Your task to perform on an android device: Open the phone app and click the voicemail tab. Image 0: 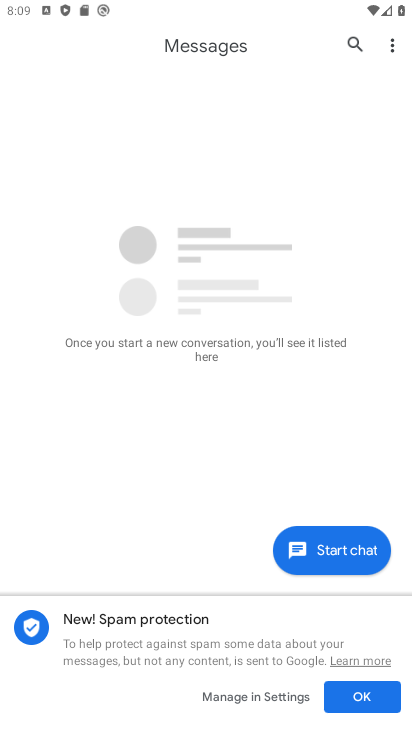
Step 0: press home button
Your task to perform on an android device: Open the phone app and click the voicemail tab. Image 1: 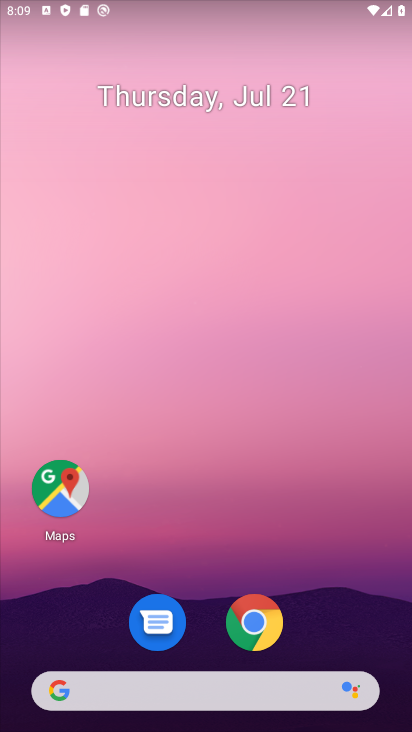
Step 1: drag from (158, 461) to (162, 368)
Your task to perform on an android device: Open the phone app and click the voicemail tab. Image 2: 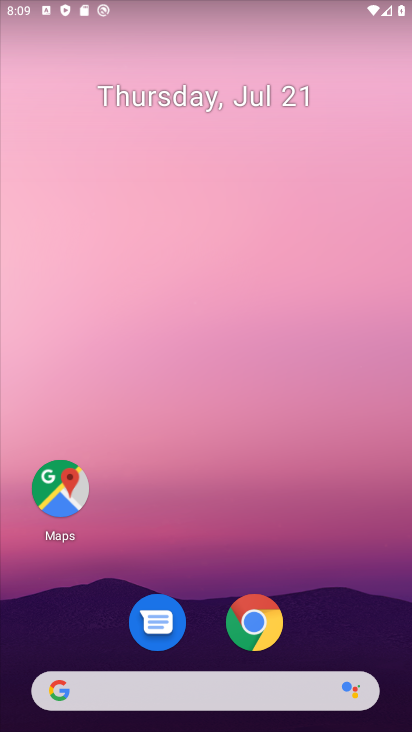
Step 2: drag from (158, 727) to (242, 16)
Your task to perform on an android device: Open the phone app and click the voicemail tab. Image 3: 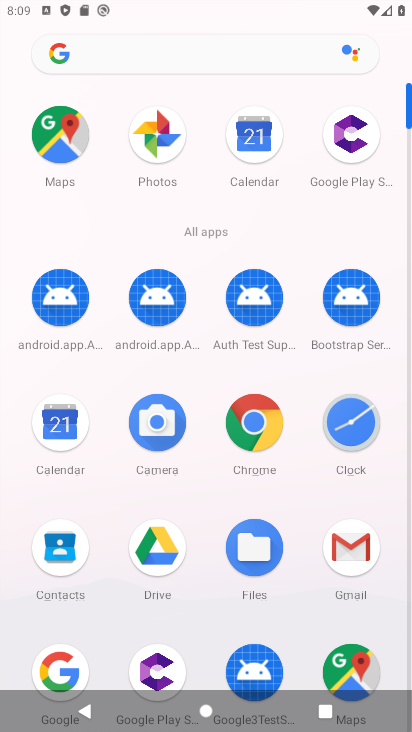
Step 3: drag from (324, 592) to (169, 128)
Your task to perform on an android device: Open the phone app and click the voicemail tab. Image 4: 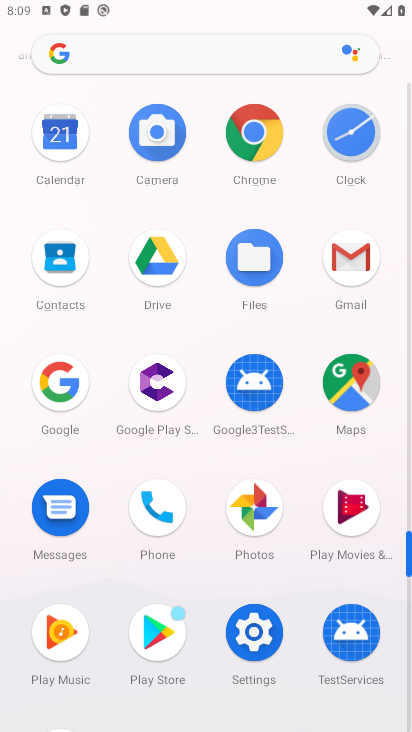
Step 4: click (158, 522)
Your task to perform on an android device: Open the phone app and click the voicemail tab. Image 5: 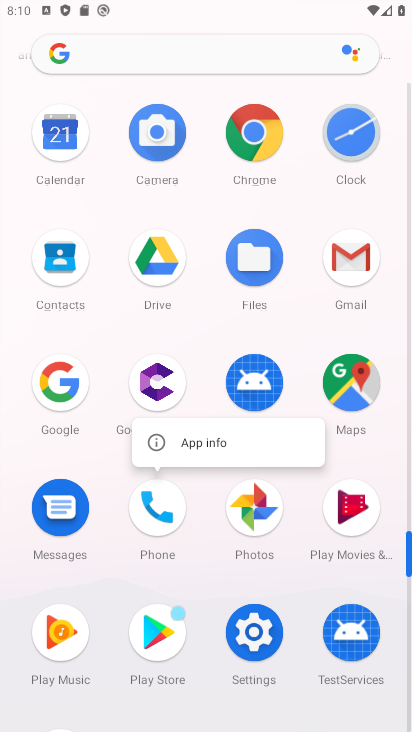
Step 5: click (157, 524)
Your task to perform on an android device: Open the phone app and click the voicemail tab. Image 6: 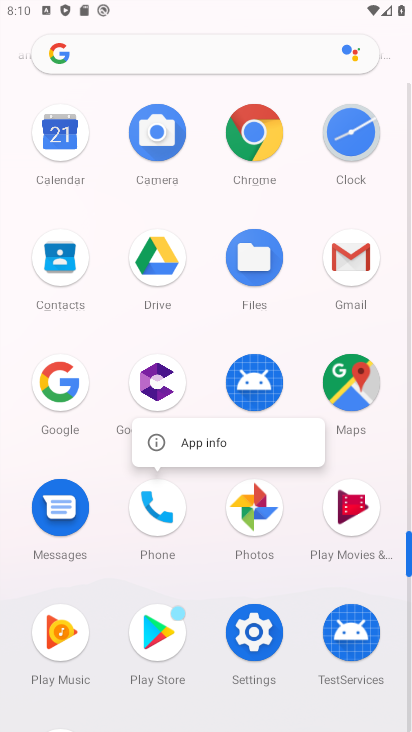
Step 6: click (157, 524)
Your task to perform on an android device: Open the phone app and click the voicemail tab. Image 7: 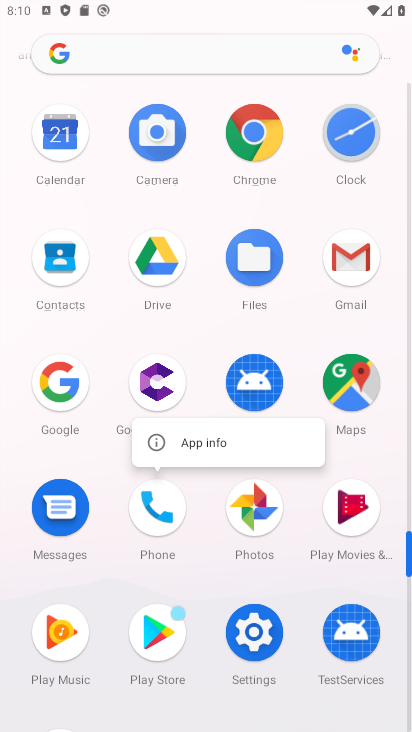
Step 7: click (157, 524)
Your task to perform on an android device: Open the phone app and click the voicemail tab. Image 8: 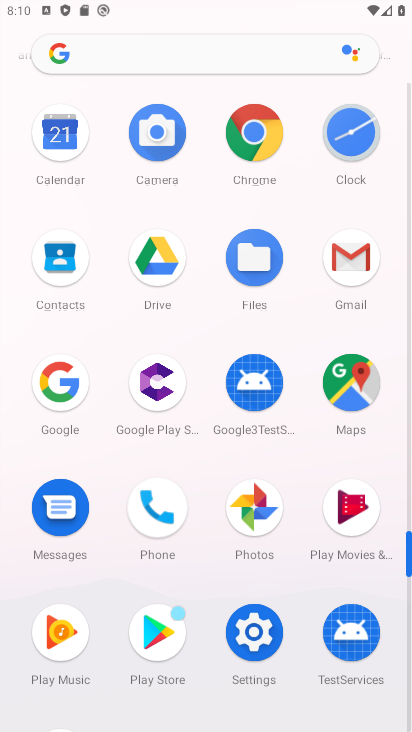
Step 8: click (157, 524)
Your task to perform on an android device: Open the phone app and click the voicemail tab. Image 9: 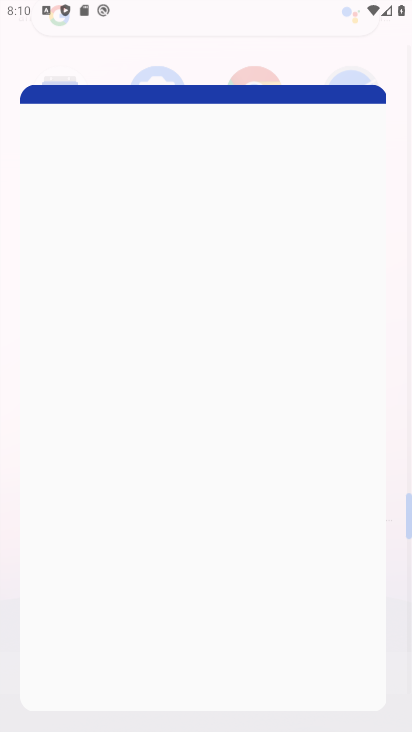
Step 9: click (157, 524)
Your task to perform on an android device: Open the phone app and click the voicemail tab. Image 10: 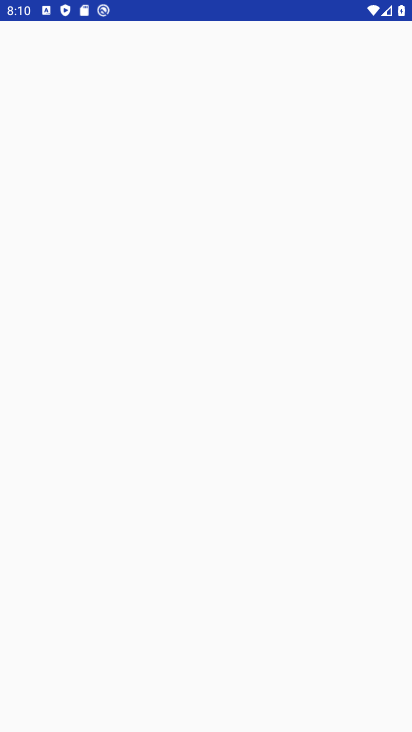
Step 10: click (157, 524)
Your task to perform on an android device: Open the phone app and click the voicemail tab. Image 11: 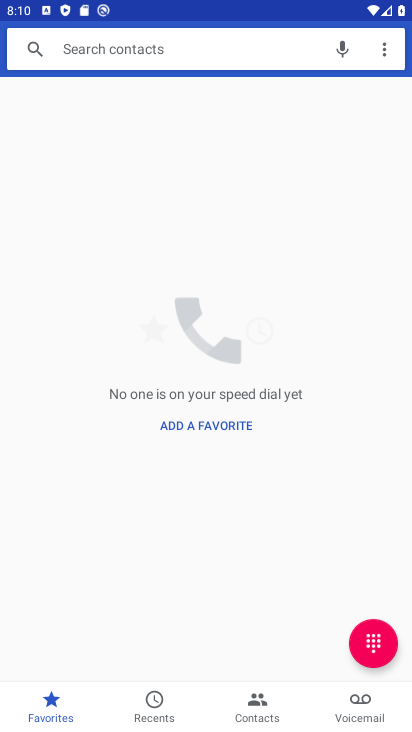
Step 11: click (319, 713)
Your task to perform on an android device: Open the phone app and click the voicemail tab. Image 12: 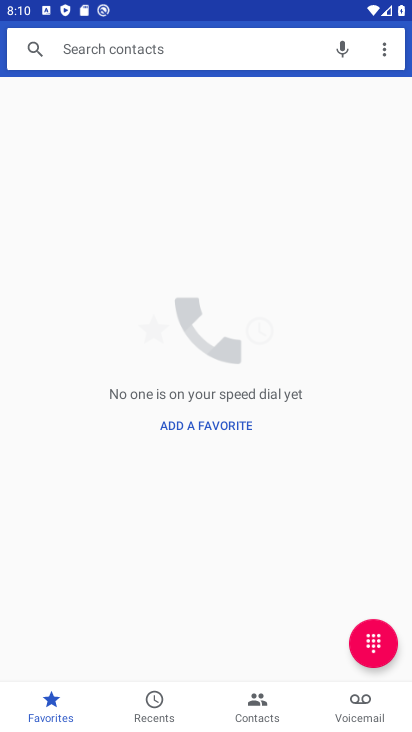
Step 12: click (319, 713)
Your task to perform on an android device: Open the phone app and click the voicemail tab. Image 13: 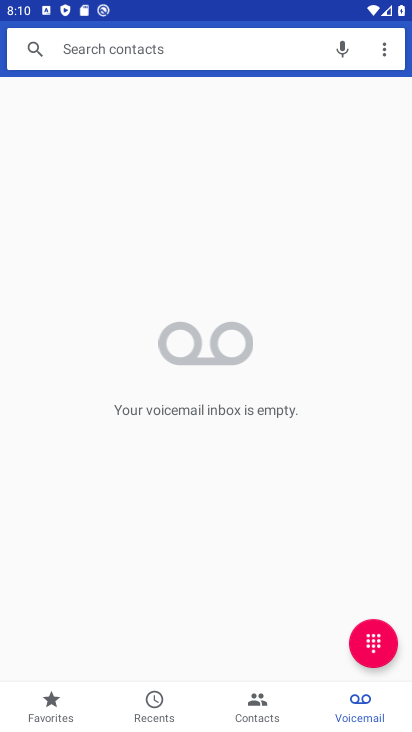
Step 13: task complete